Your task to perform on an android device: Do I have any events tomorrow? Image 0: 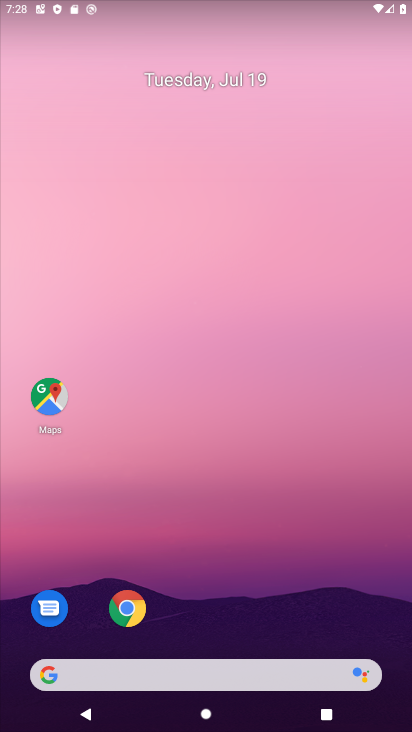
Step 0: drag from (177, 675) to (330, 160)
Your task to perform on an android device: Do I have any events tomorrow? Image 1: 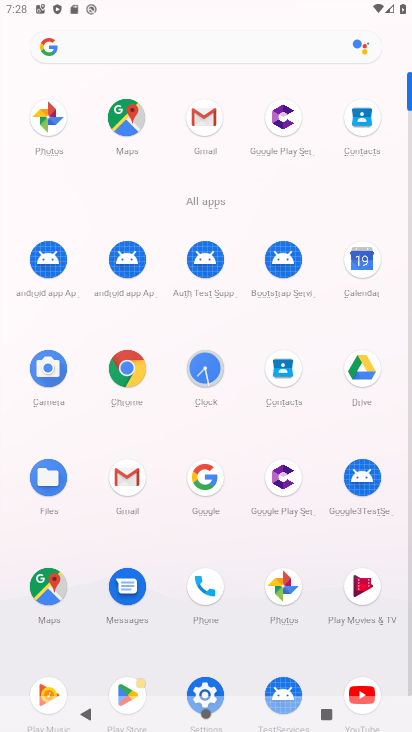
Step 1: click (371, 260)
Your task to perform on an android device: Do I have any events tomorrow? Image 2: 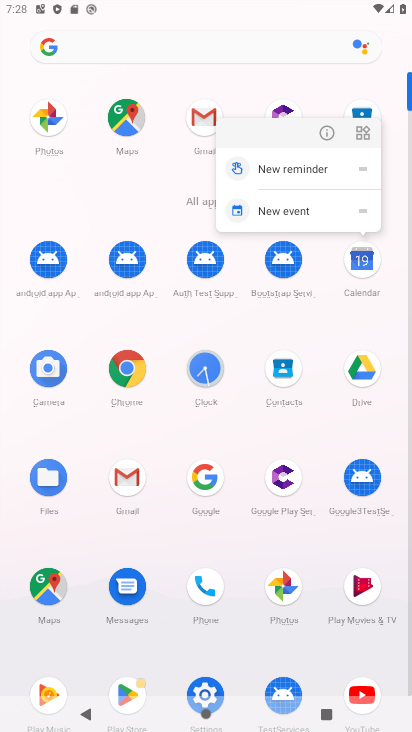
Step 2: click (366, 265)
Your task to perform on an android device: Do I have any events tomorrow? Image 3: 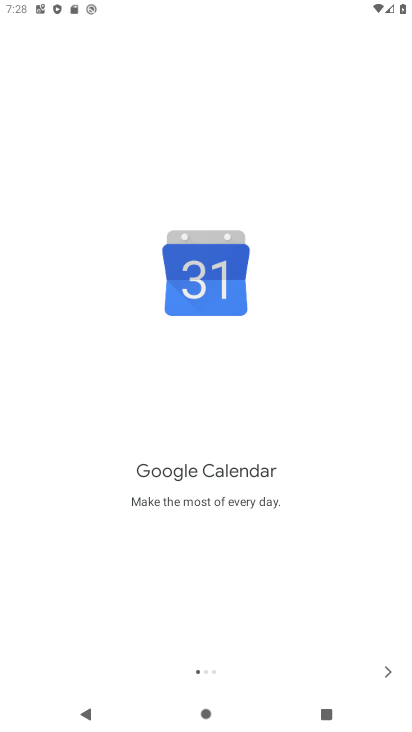
Step 3: click (395, 667)
Your task to perform on an android device: Do I have any events tomorrow? Image 4: 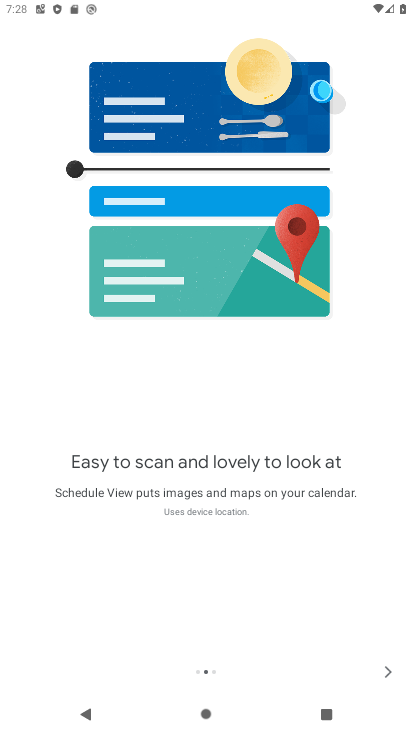
Step 4: click (395, 667)
Your task to perform on an android device: Do I have any events tomorrow? Image 5: 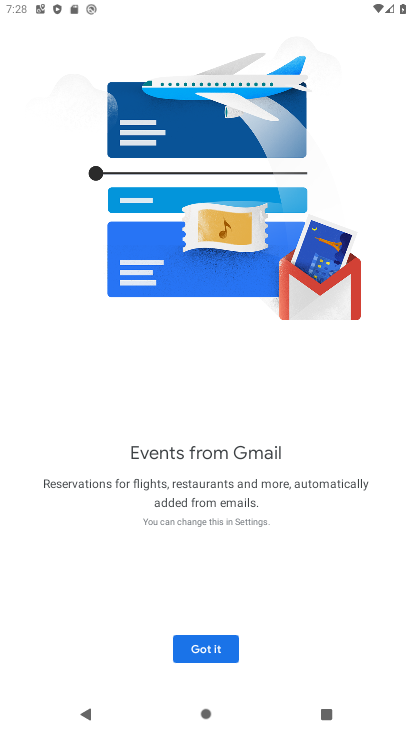
Step 5: click (199, 651)
Your task to perform on an android device: Do I have any events tomorrow? Image 6: 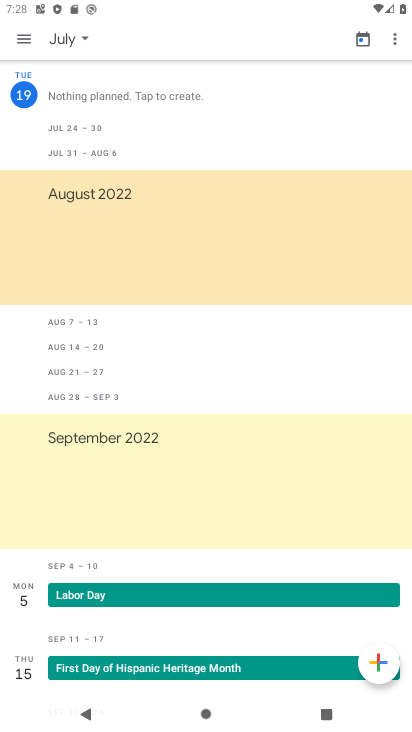
Step 6: click (74, 43)
Your task to perform on an android device: Do I have any events tomorrow? Image 7: 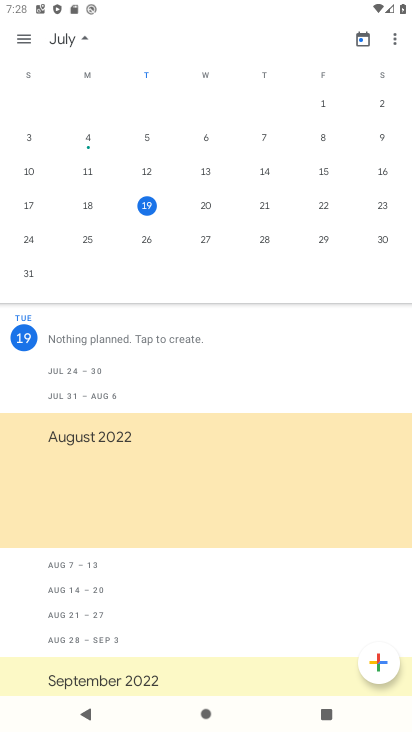
Step 7: click (205, 206)
Your task to perform on an android device: Do I have any events tomorrow? Image 8: 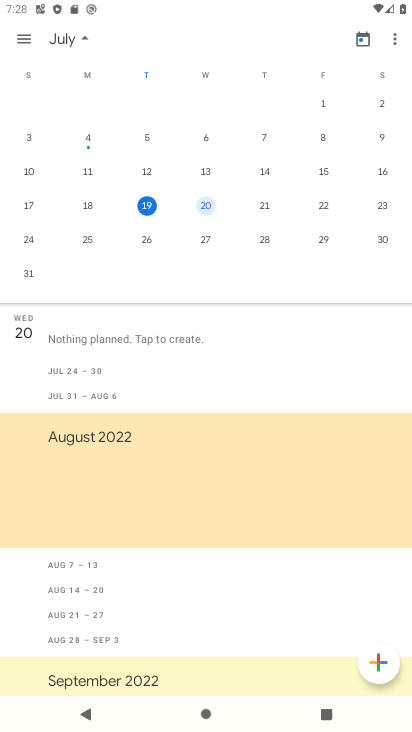
Step 8: click (27, 37)
Your task to perform on an android device: Do I have any events tomorrow? Image 9: 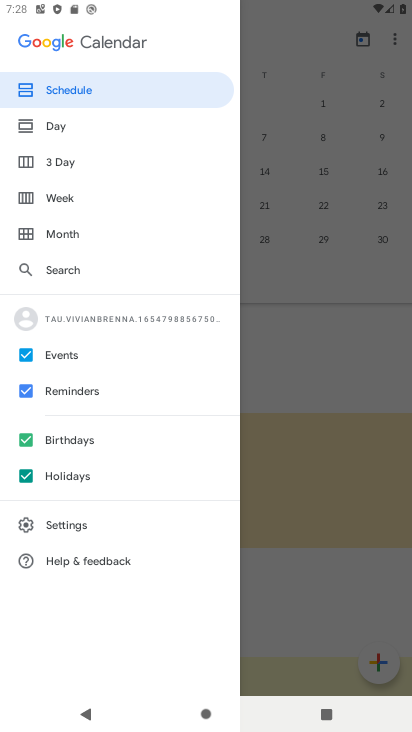
Step 9: click (49, 94)
Your task to perform on an android device: Do I have any events tomorrow? Image 10: 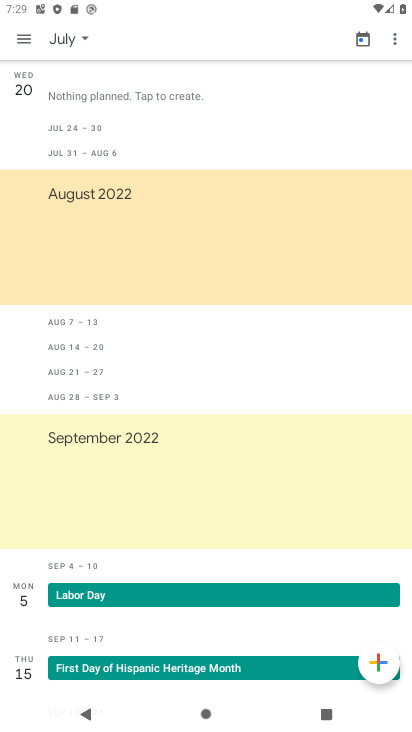
Step 10: task complete